Your task to perform on an android device: Open calendar and show me the first week of next month Image 0: 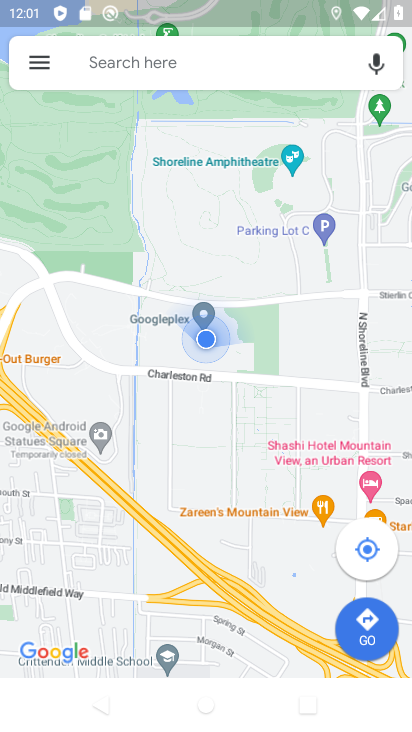
Step 0: press home button
Your task to perform on an android device: Open calendar and show me the first week of next month Image 1: 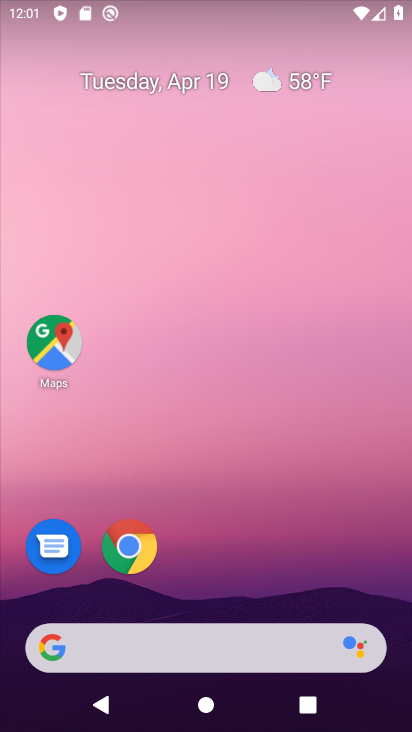
Step 1: drag from (203, 607) to (258, 18)
Your task to perform on an android device: Open calendar and show me the first week of next month Image 2: 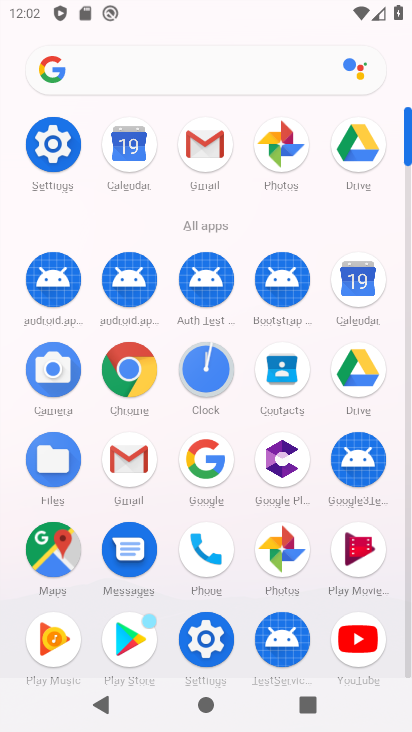
Step 2: click (362, 280)
Your task to perform on an android device: Open calendar and show me the first week of next month Image 3: 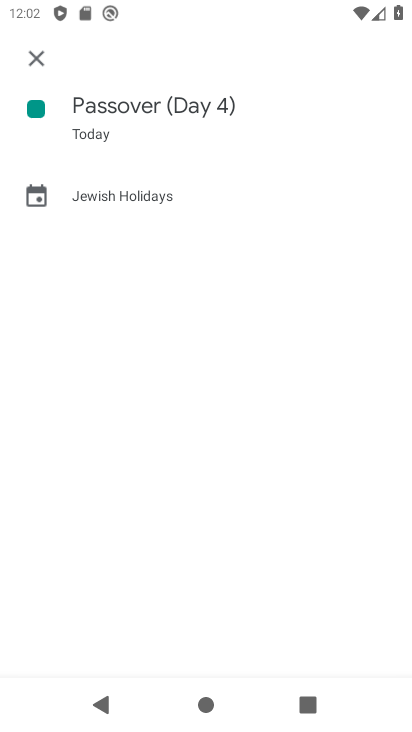
Step 3: click (32, 55)
Your task to perform on an android device: Open calendar and show me the first week of next month Image 4: 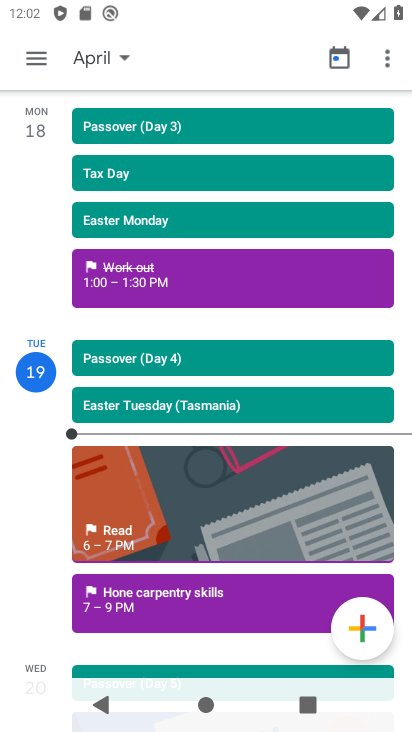
Step 4: click (99, 55)
Your task to perform on an android device: Open calendar and show me the first week of next month Image 5: 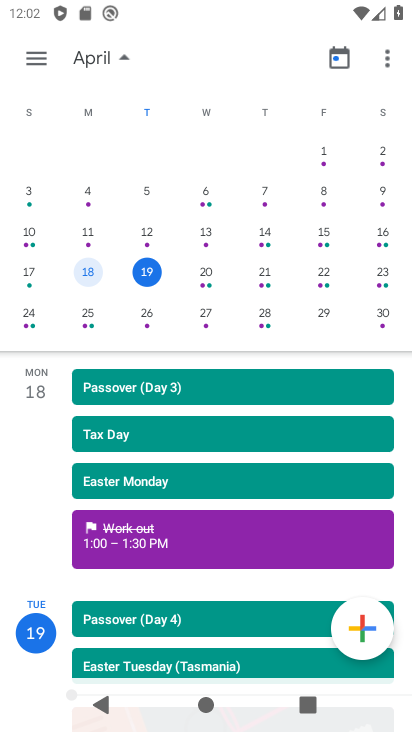
Step 5: drag from (376, 234) to (17, 229)
Your task to perform on an android device: Open calendar and show me the first week of next month Image 6: 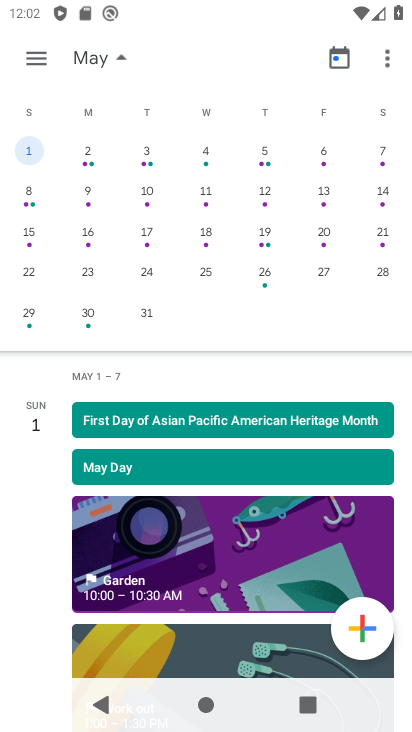
Step 6: click (32, 60)
Your task to perform on an android device: Open calendar and show me the first week of next month Image 7: 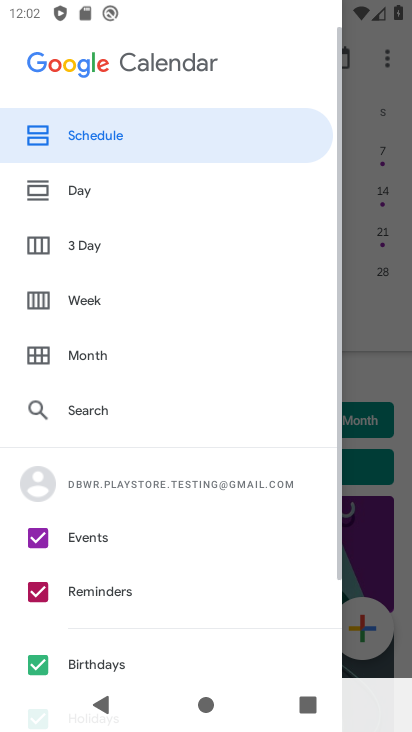
Step 7: click (120, 299)
Your task to perform on an android device: Open calendar and show me the first week of next month Image 8: 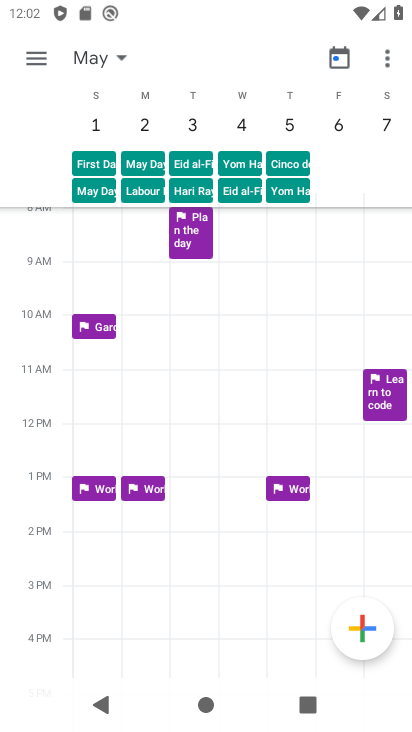
Step 8: task complete